Your task to perform on an android device: open app "Indeed Job Search" (install if not already installed), go to login, and select forgot password Image 0: 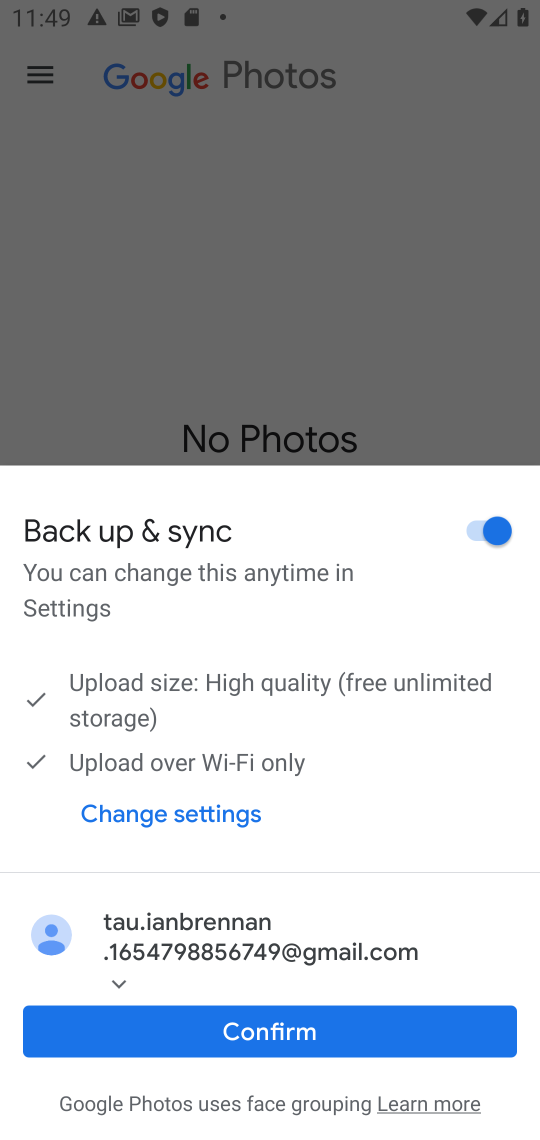
Step 0: press back button
Your task to perform on an android device: open app "Indeed Job Search" (install if not already installed), go to login, and select forgot password Image 1: 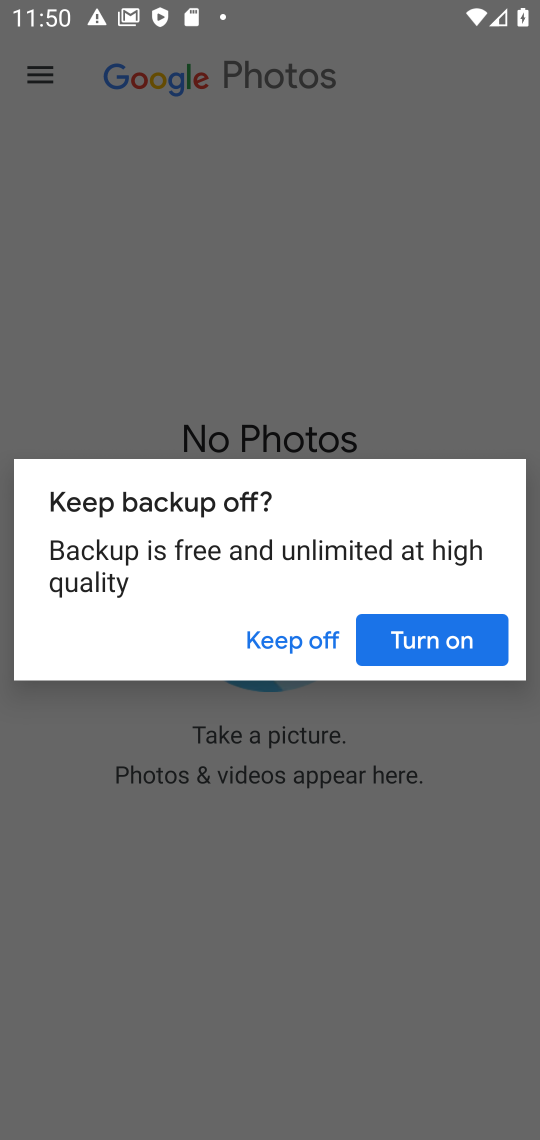
Step 1: press home button
Your task to perform on an android device: open app "Indeed Job Search" (install if not already installed), go to login, and select forgot password Image 2: 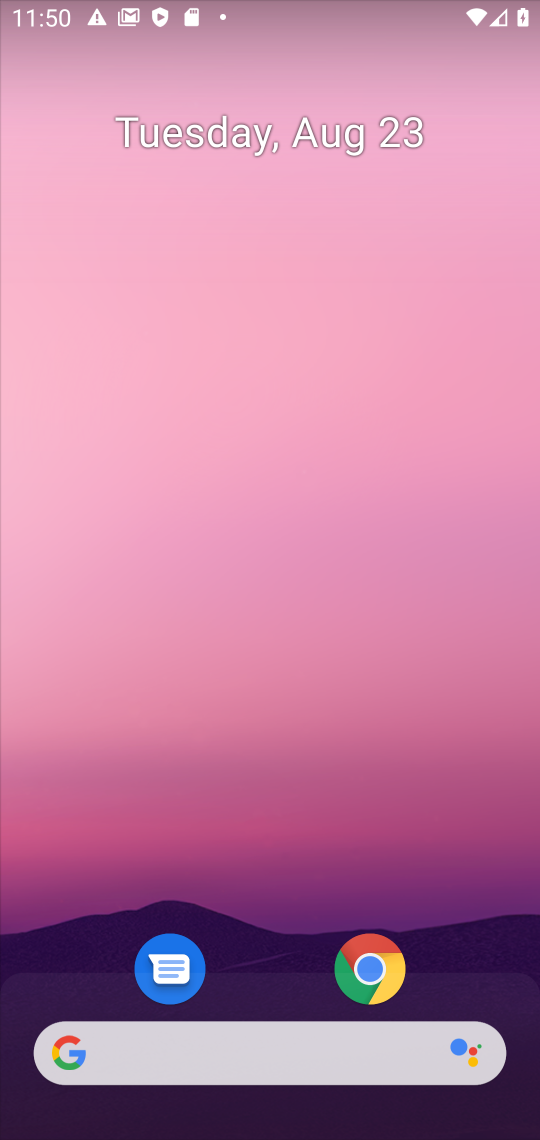
Step 2: drag from (139, 793) to (67, 165)
Your task to perform on an android device: open app "Indeed Job Search" (install if not already installed), go to login, and select forgot password Image 3: 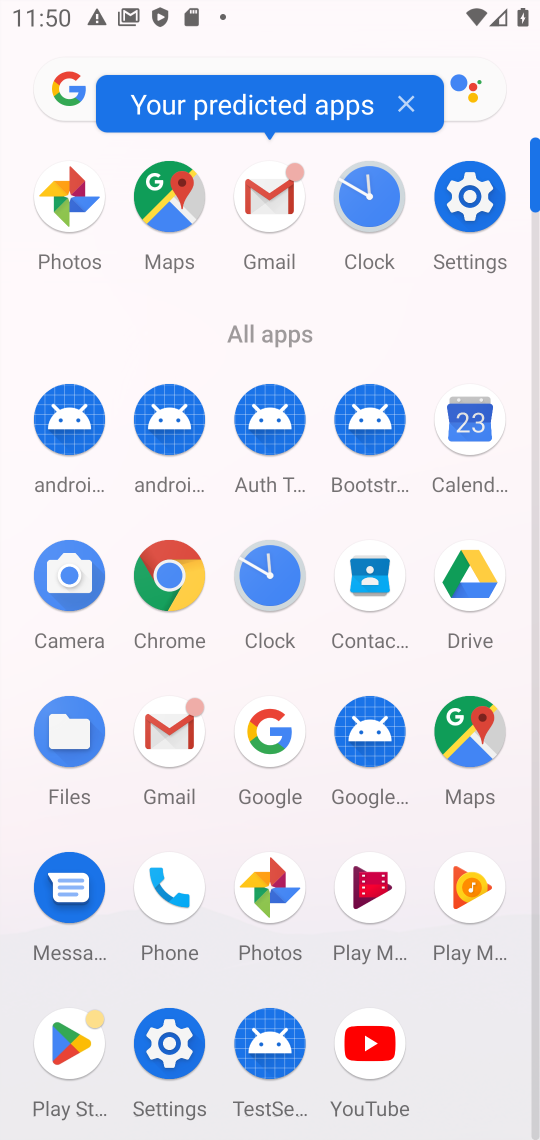
Step 3: click (40, 1048)
Your task to perform on an android device: open app "Indeed Job Search" (install if not already installed), go to login, and select forgot password Image 4: 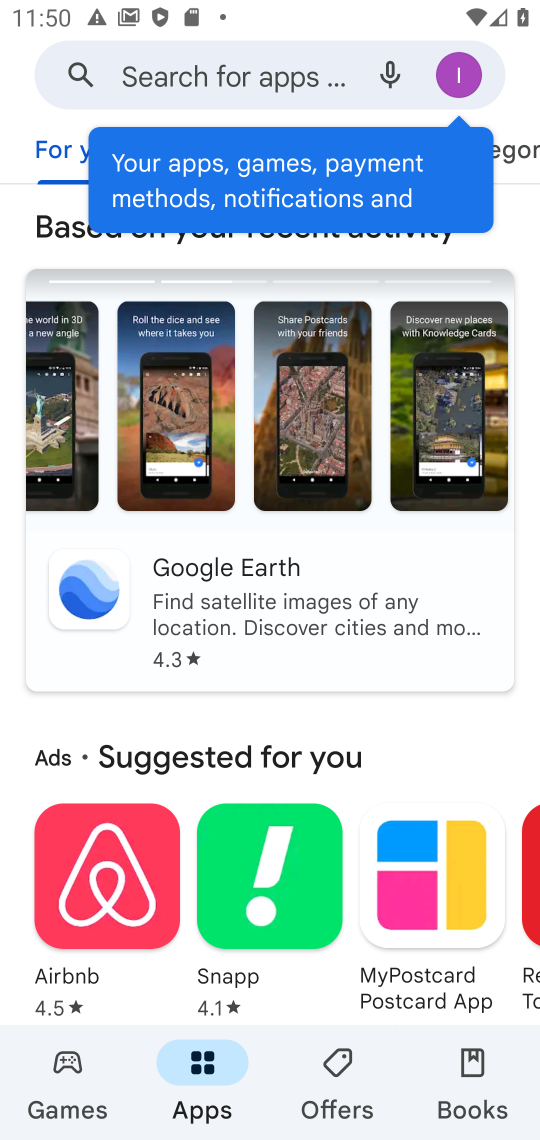
Step 4: type "Indeed Job Search"
Your task to perform on an android device: open app "Indeed Job Search" (install if not already installed), go to login, and select forgot password Image 5: 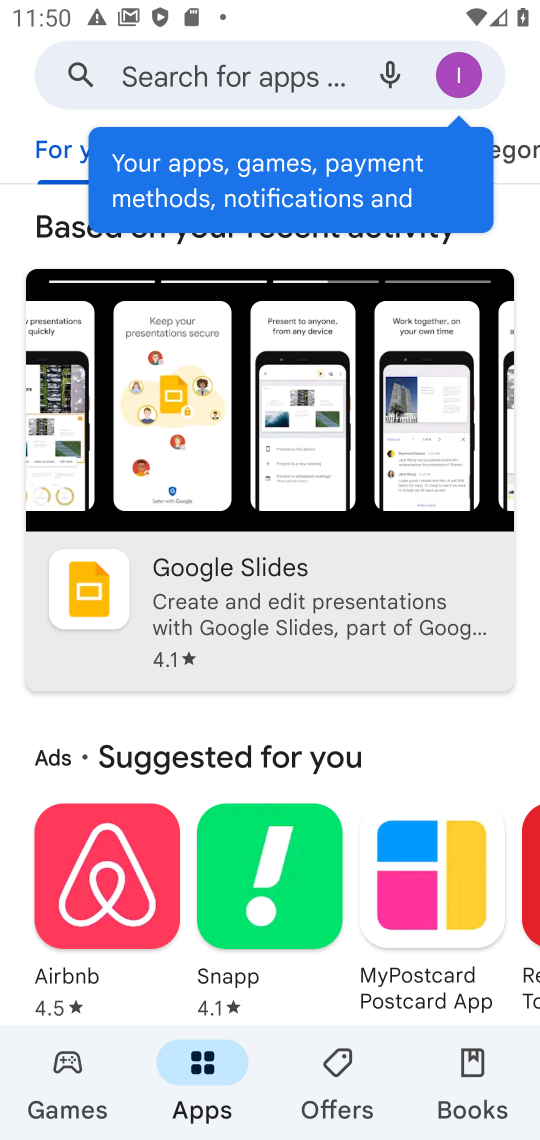
Step 5: click (122, 68)
Your task to perform on an android device: open app "Indeed Job Search" (install if not already installed), go to login, and select forgot password Image 6: 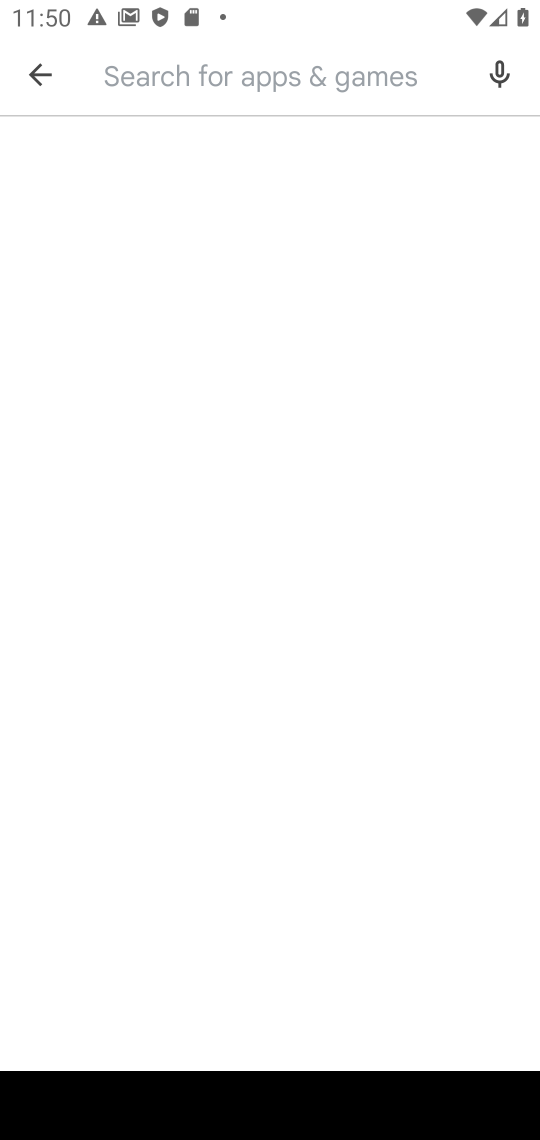
Step 6: type "Indeed Job Search"
Your task to perform on an android device: open app "Indeed Job Search" (install if not already installed), go to login, and select forgot password Image 7: 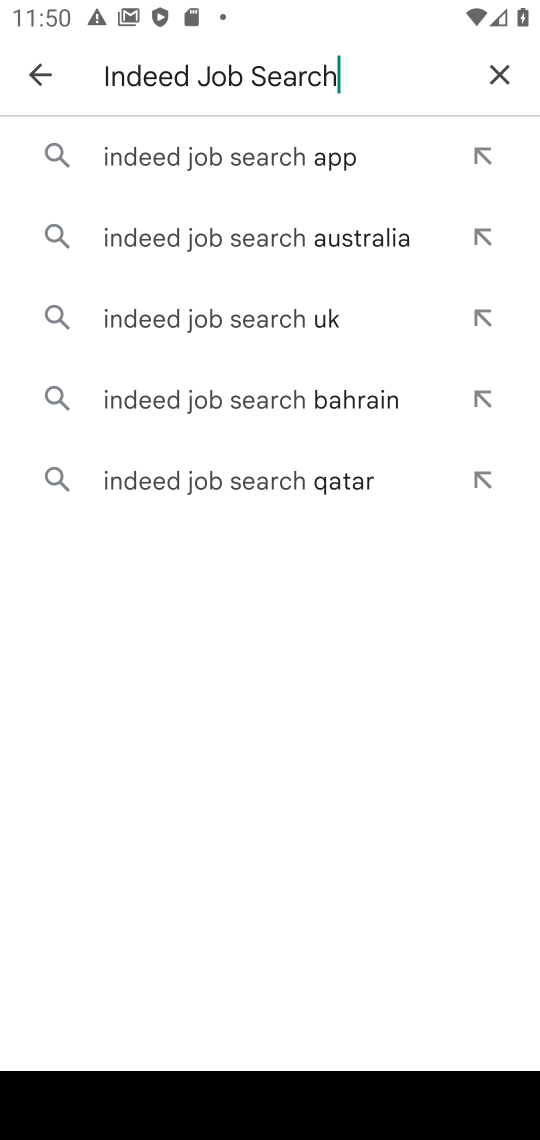
Step 7: click (153, 180)
Your task to perform on an android device: open app "Indeed Job Search" (install if not already installed), go to login, and select forgot password Image 8: 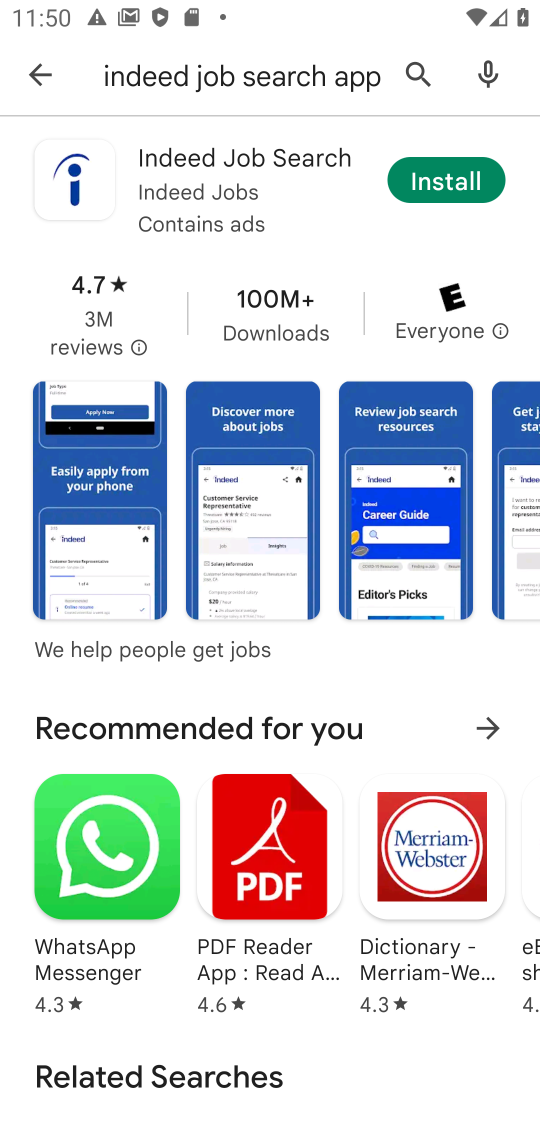
Step 8: click (450, 180)
Your task to perform on an android device: open app "Indeed Job Search" (install if not already installed), go to login, and select forgot password Image 9: 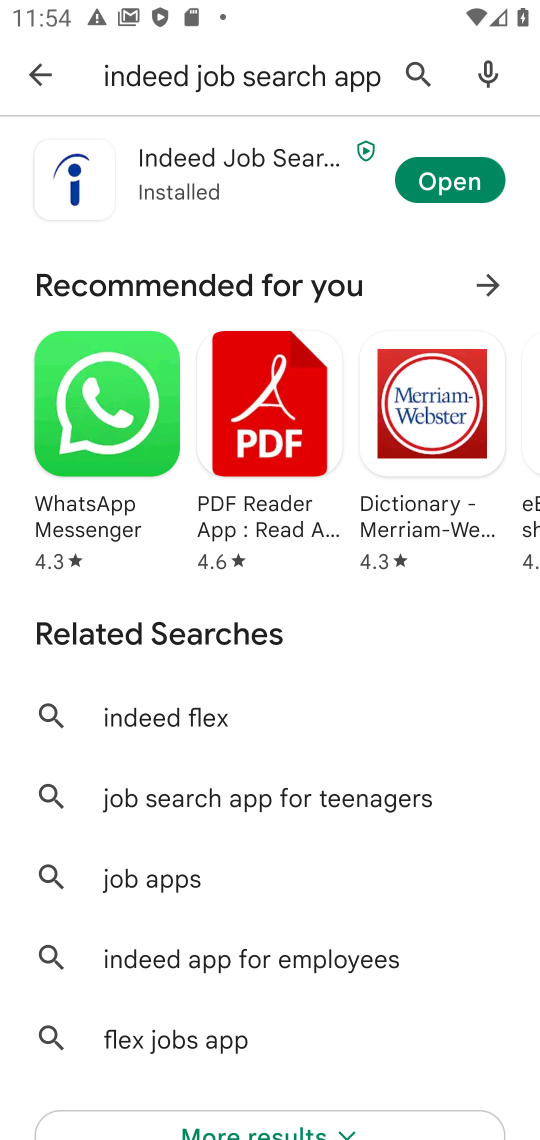
Step 9: click (430, 176)
Your task to perform on an android device: open app "Indeed Job Search" (install if not already installed), go to login, and select forgot password Image 10: 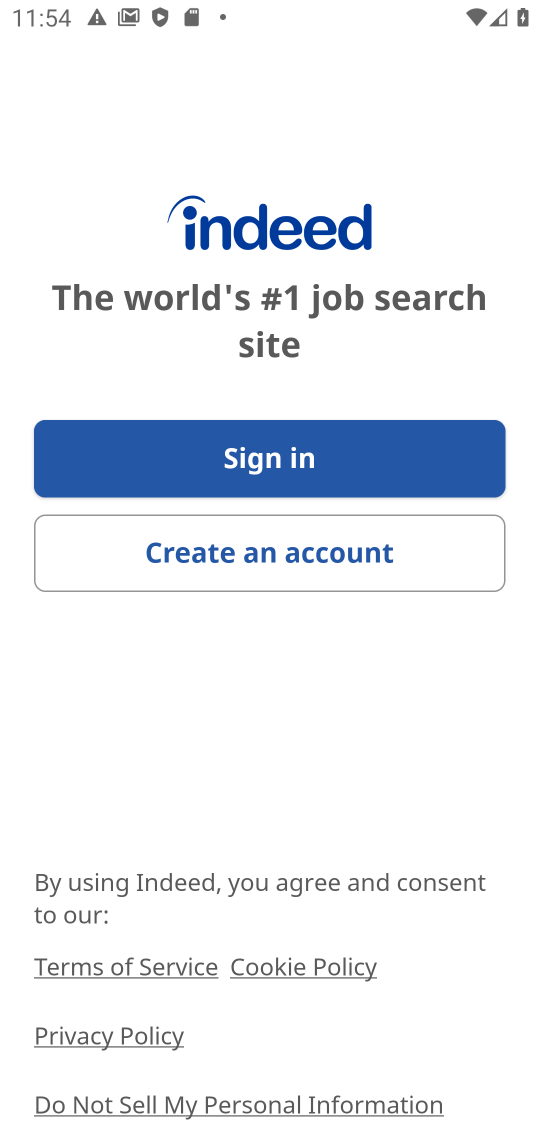
Step 10: click (232, 471)
Your task to perform on an android device: open app "Indeed Job Search" (install if not already installed), go to login, and select forgot password Image 11: 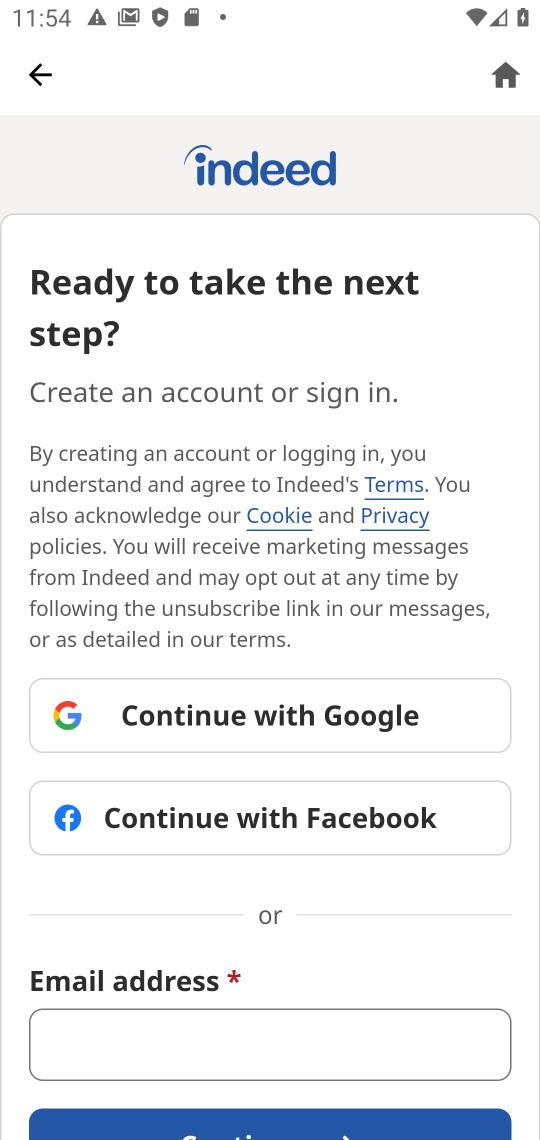
Step 11: task complete